Your task to perform on an android device: add a contact Image 0: 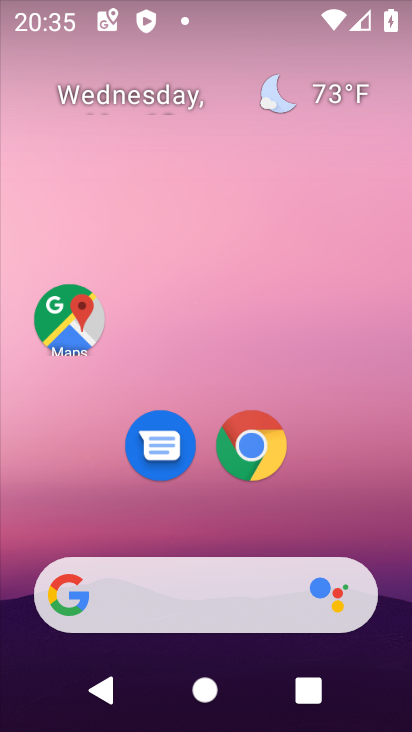
Step 0: drag from (333, 536) to (305, 158)
Your task to perform on an android device: add a contact Image 1: 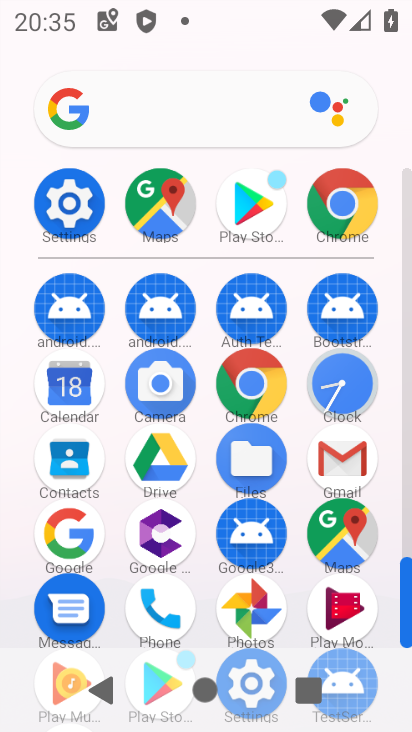
Step 1: click (147, 585)
Your task to perform on an android device: add a contact Image 2: 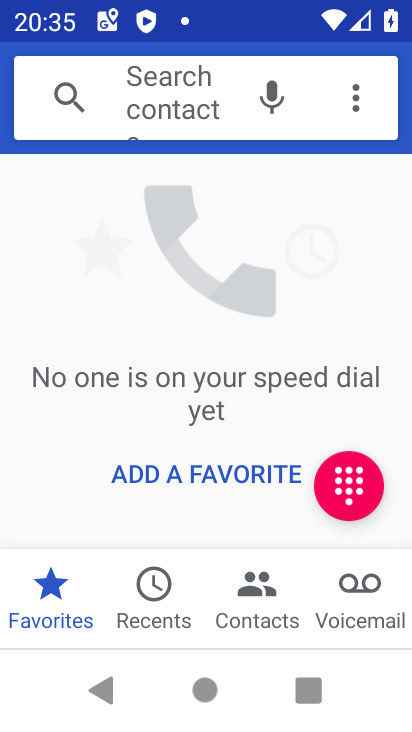
Step 2: click (195, 461)
Your task to perform on an android device: add a contact Image 3: 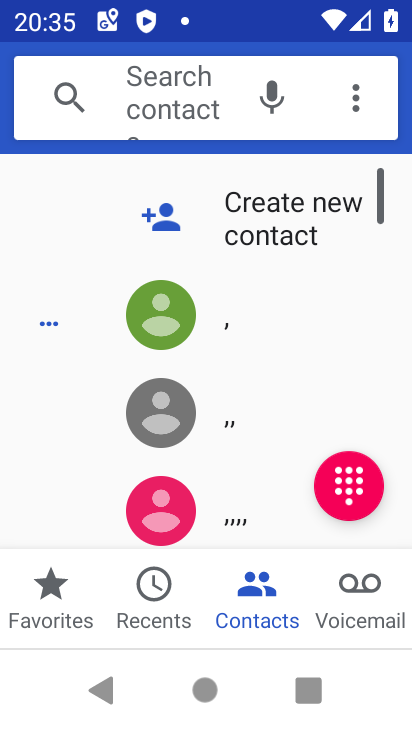
Step 3: click (223, 233)
Your task to perform on an android device: add a contact Image 4: 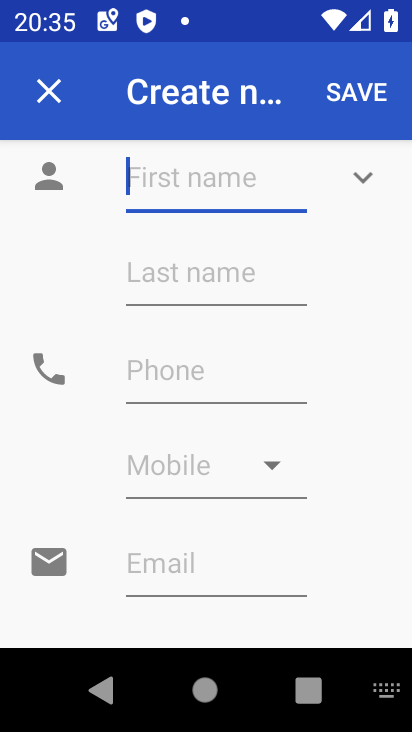
Step 4: click (258, 185)
Your task to perform on an android device: add a contact Image 5: 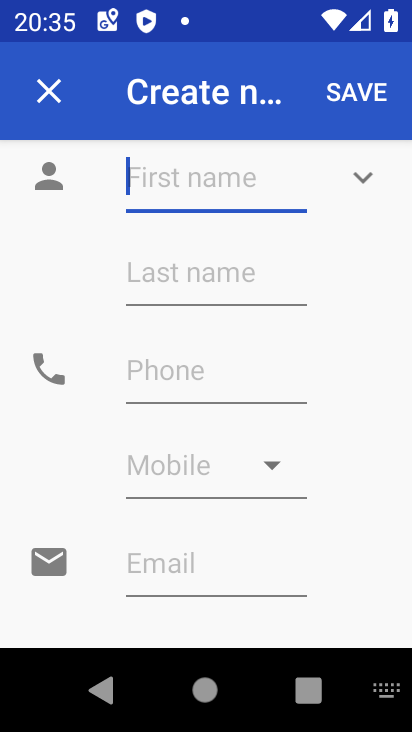
Step 5: type "dfdfdfdddd"
Your task to perform on an android device: add a contact Image 6: 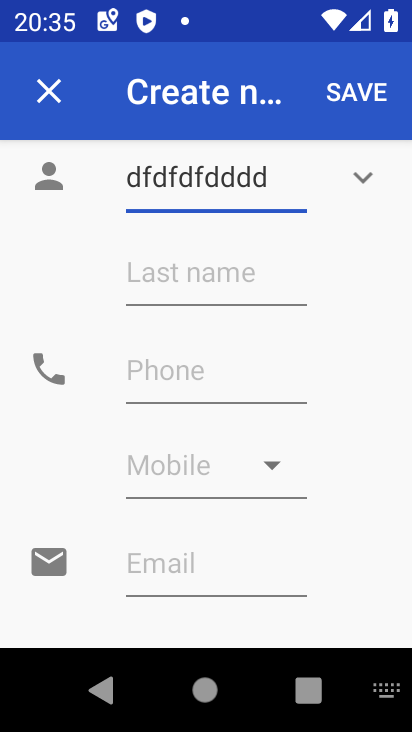
Step 6: click (229, 367)
Your task to perform on an android device: add a contact Image 7: 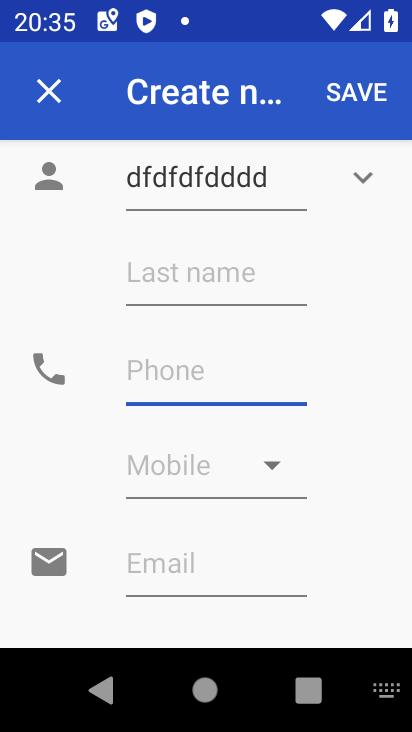
Step 7: type "87877787"
Your task to perform on an android device: add a contact Image 8: 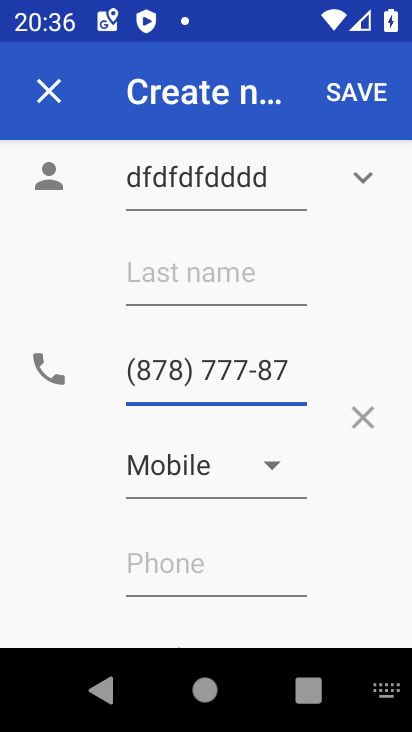
Step 8: click (355, 104)
Your task to perform on an android device: add a contact Image 9: 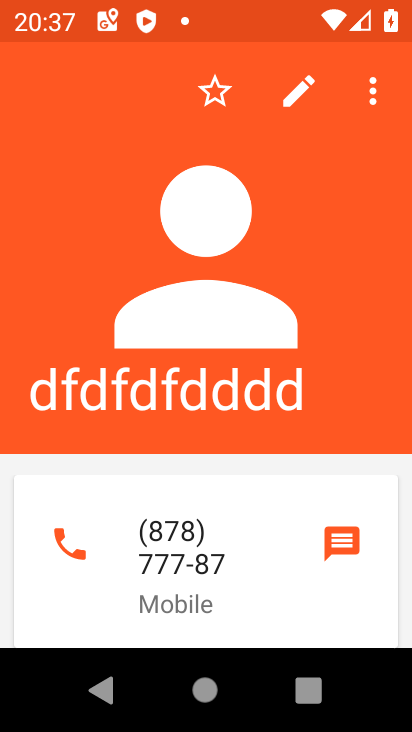
Step 9: task complete